Your task to perform on an android device: Go to sound settings Image 0: 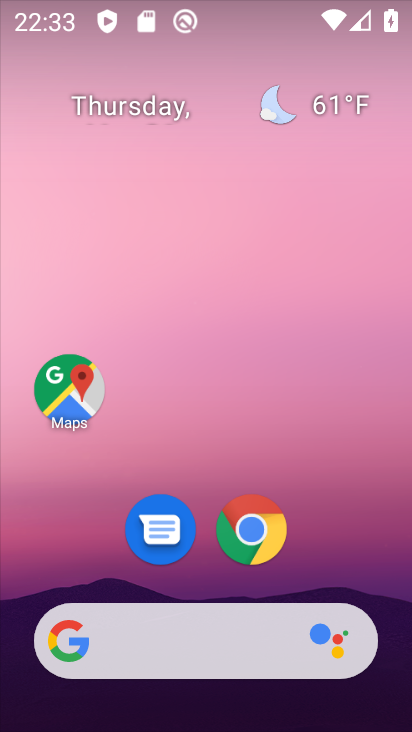
Step 0: drag from (328, 560) to (302, 11)
Your task to perform on an android device: Go to sound settings Image 1: 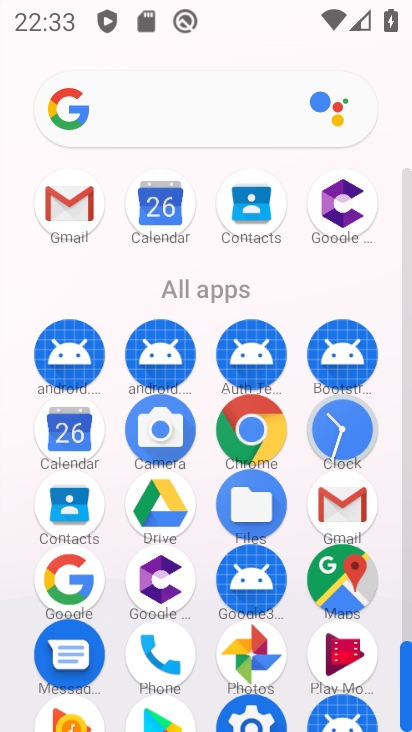
Step 1: click (257, 711)
Your task to perform on an android device: Go to sound settings Image 2: 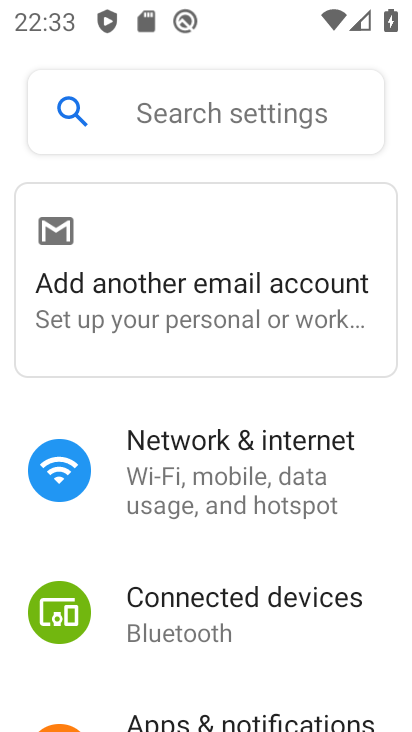
Step 2: drag from (244, 637) to (275, 291)
Your task to perform on an android device: Go to sound settings Image 3: 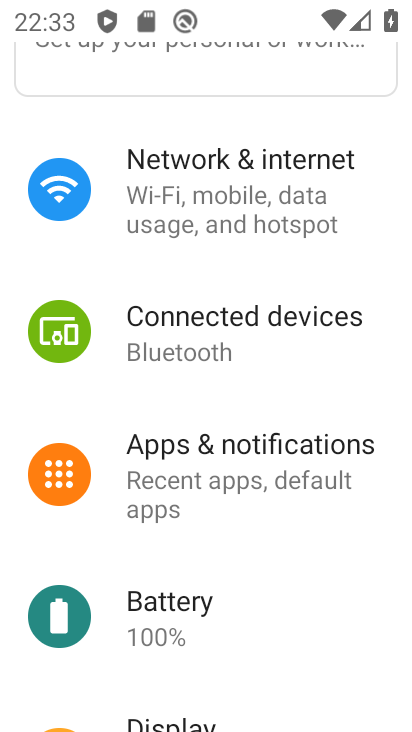
Step 3: drag from (254, 642) to (279, 367)
Your task to perform on an android device: Go to sound settings Image 4: 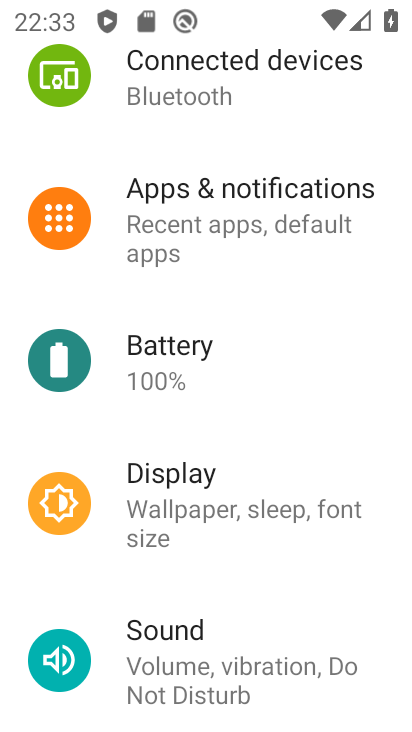
Step 4: click (216, 667)
Your task to perform on an android device: Go to sound settings Image 5: 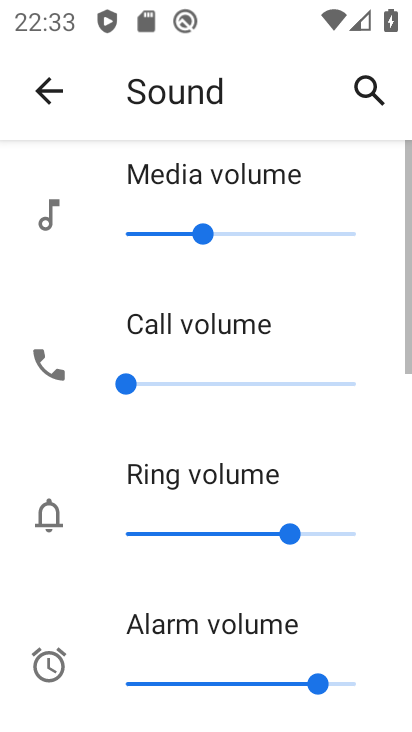
Step 5: task complete